Your task to perform on an android device: Go to CNN.com Image 0: 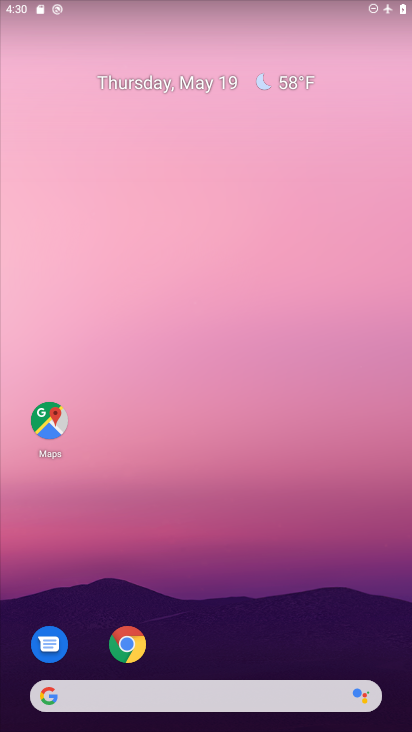
Step 0: drag from (248, 479) to (220, 37)
Your task to perform on an android device: Go to CNN.com Image 1: 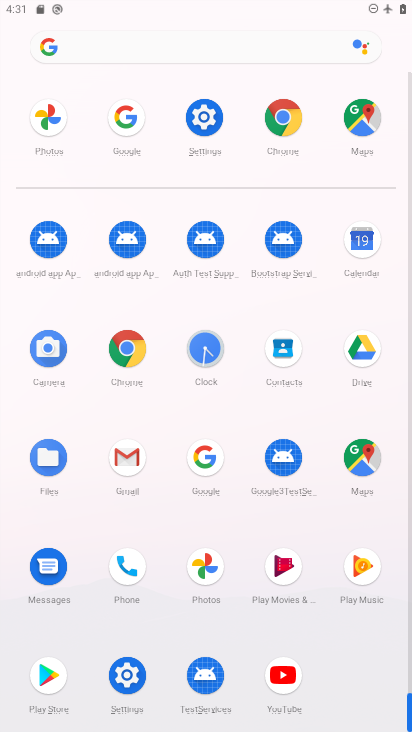
Step 1: click (130, 342)
Your task to perform on an android device: Go to CNN.com Image 2: 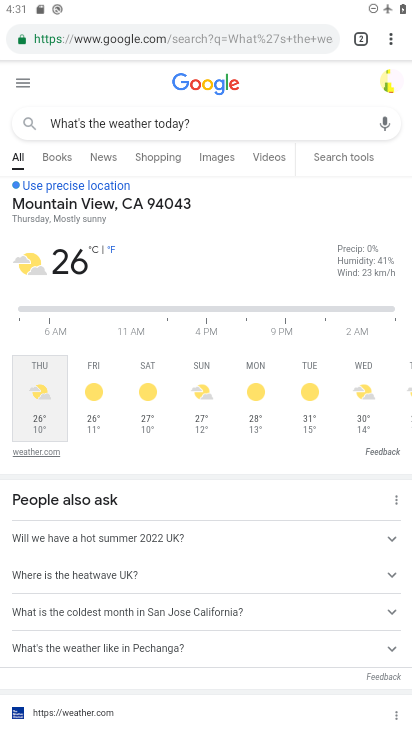
Step 2: click (185, 42)
Your task to perform on an android device: Go to CNN.com Image 3: 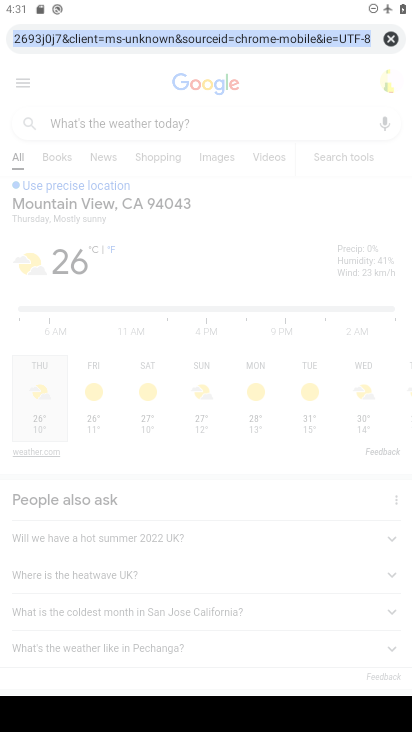
Step 3: click (383, 40)
Your task to perform on an android device: Go to CNN.com Image 4: 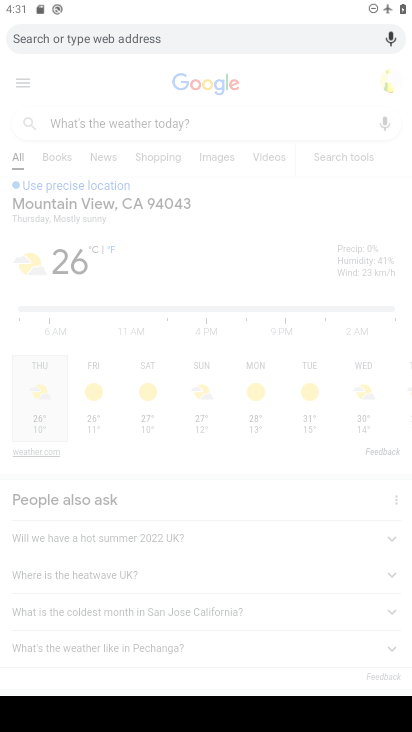
Step 4: type "CNN.com"
Your task to perform on an android device: Go to CNN.com Image 5: 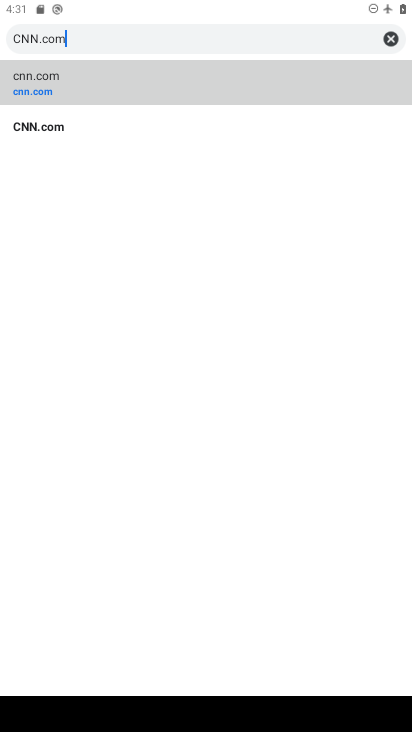
Step 5: type ""
Your task to perform on an android device: Go to CNN.com Image 6: 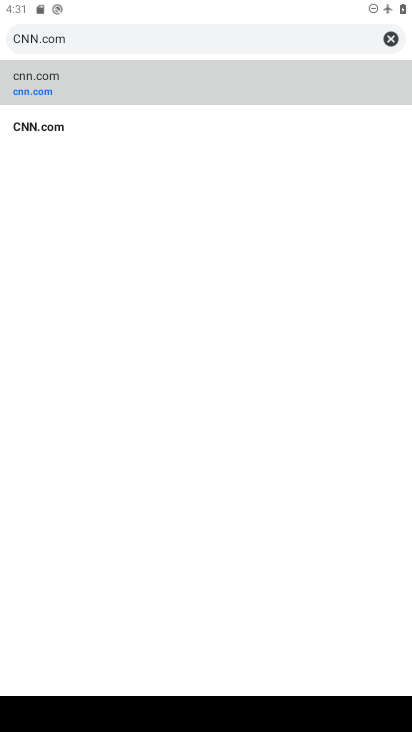
Step 6: click (76, 89)
Your task to perform on an android device: Go to CNN.com Image 7: 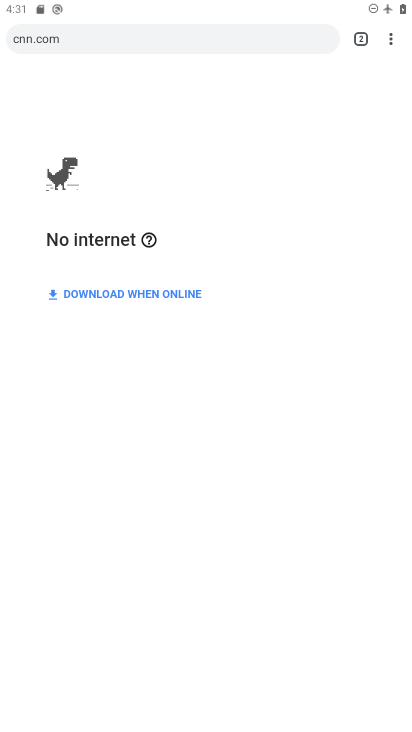
Step 7: task complete